Your task to perform on an android device: Search for vegetarian restaurants on Maps Image 0: 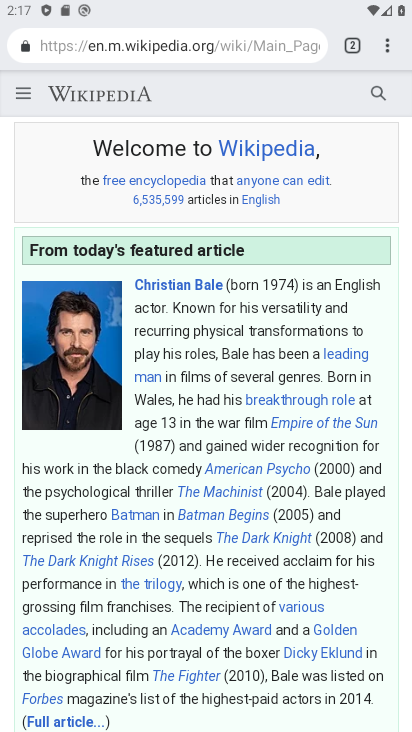
Step 0: press home button
Your task to perform on an android device: Search for vegetarian restaurants on Maps Image 1: 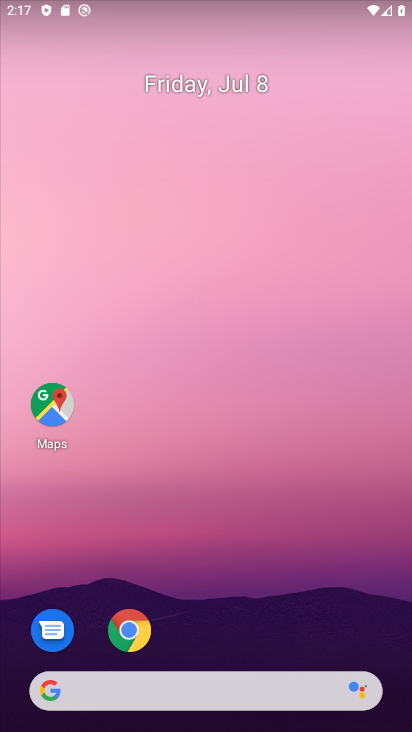
Step 1: drag from (247, 639) to (233, 3)
Your task to perform on an android device: Search for vegetarian restaurants on Maps Image 2: 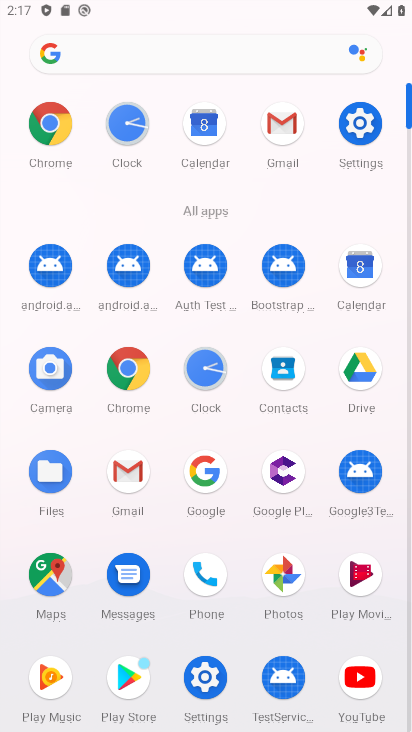
Step 2: click (33, 577)
Your task to perform on an android device: Search for vegetarian restaurants on Maps Image 3: 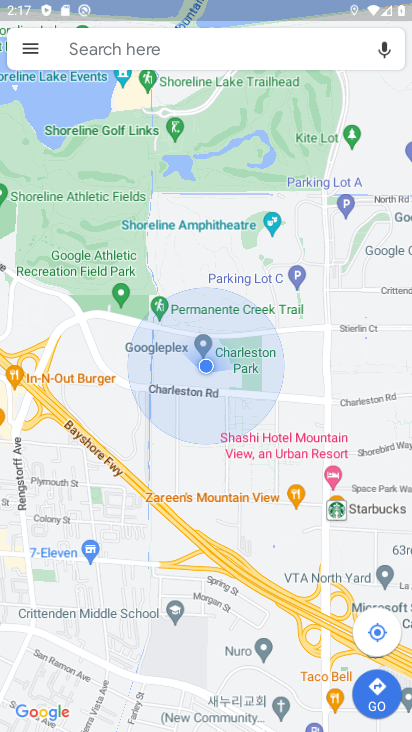
Step 3: click (158, 48)
Your task to perform on an android device: Search for vegetarian restaurants on Maps Image 4: 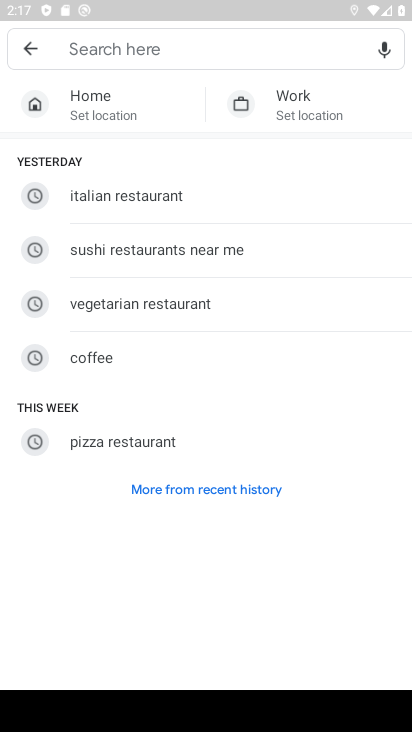
Step 4: type "vegetarian"
Your task to perform on an android device: Search for vegetarian restaurants on Maps Image 5: 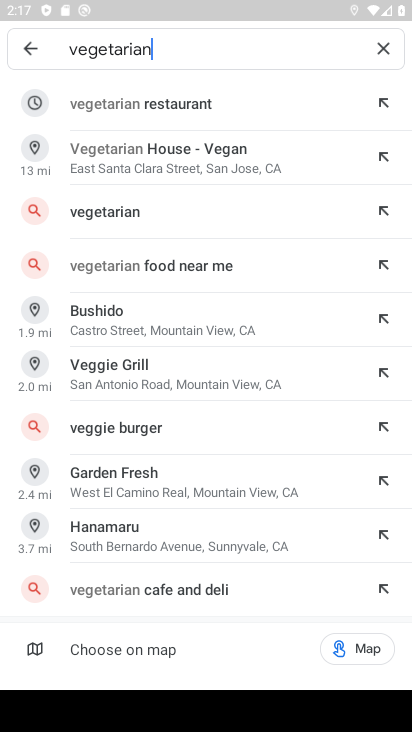
Step 5: click (266, 124)
Your task to perform on an android device: Search for vegetarian restaurants on Maps Image 6: 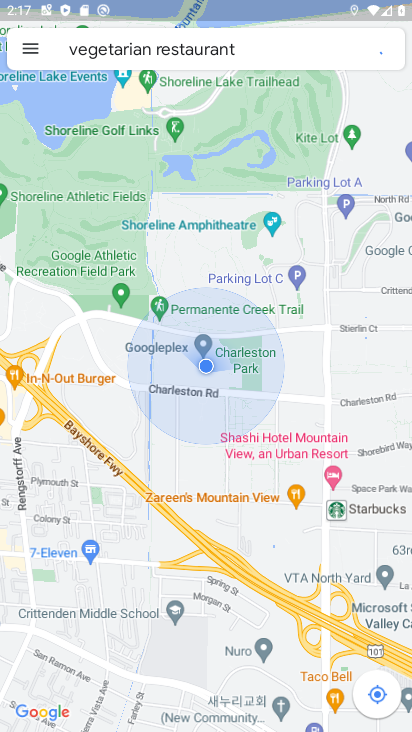
Step 6: task complete